Your task to perform on an android device: turn off picture-in-picture Image 0: 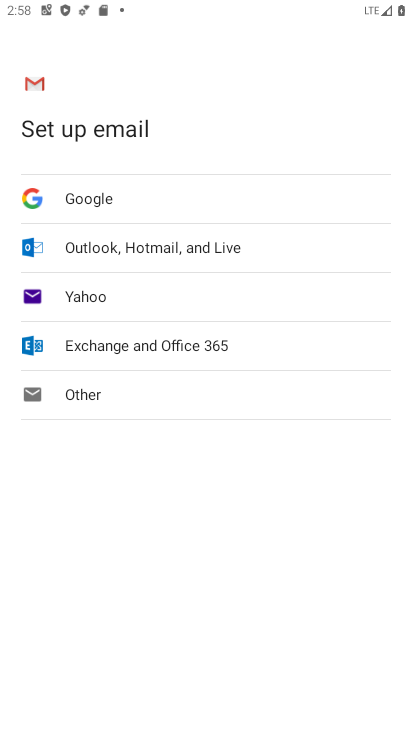
Step 0: press home button
Your task to perform on an android device: turn off picture-in-picture Image 1: 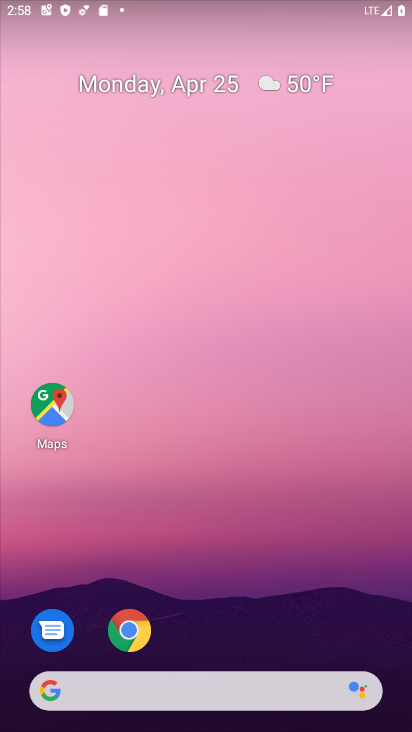
Step 1: drag from (144, 429) to (82, 90)
Your task to perform on an android device: turn off picture-in-picture Image 2: 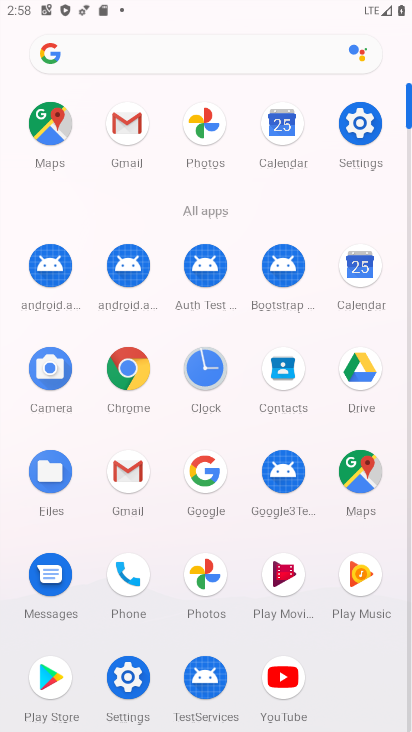
Step 2: click (363, 129)
Your task to perform on an android device: turn off picture-in-picture Image 3: 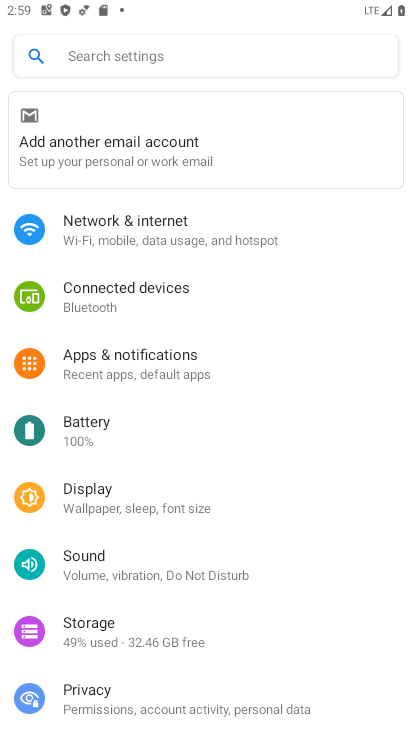
Step 3: click (184, 374)
Your task to perform on an android device: turn off picture-in-picture Image 4: 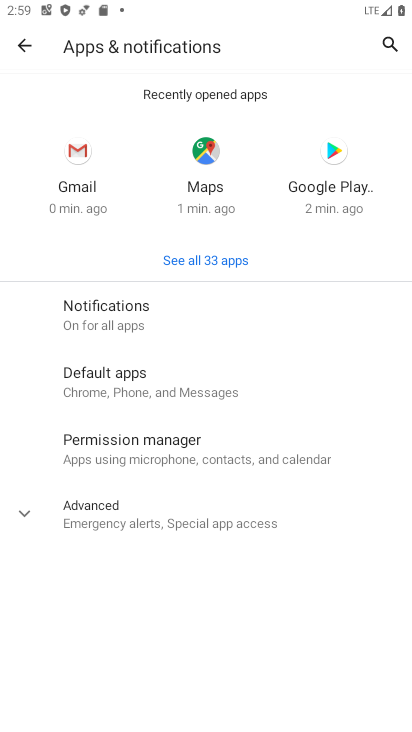
Step 4: click (101, 517)
Your task to perform on an android device: turn off picture-in-picture Image 5: 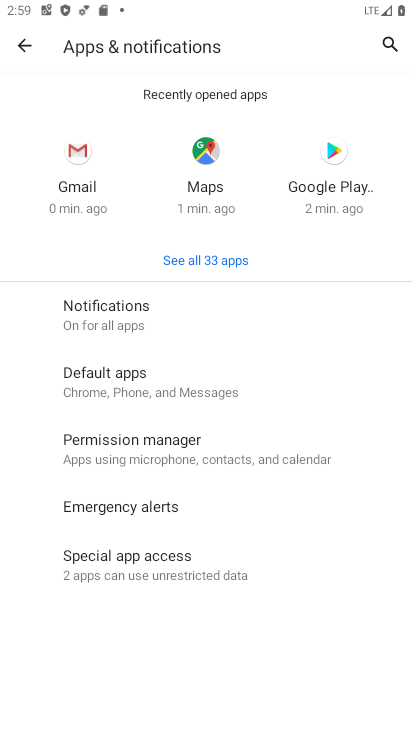
Step 5: click (110, 556)
Your task to perform on an android device: turn off picture-in-picture Image 6: 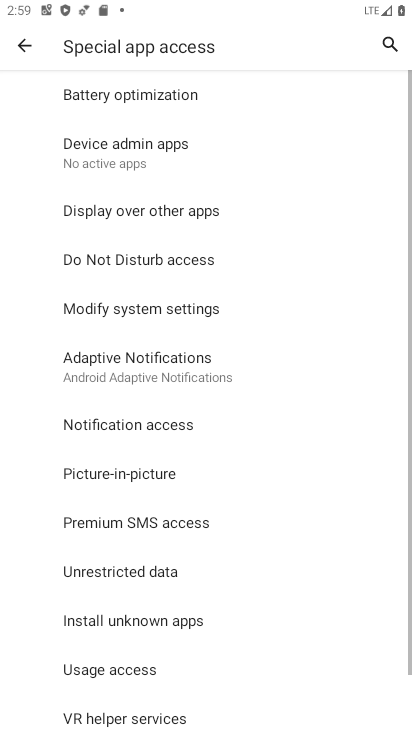
Step 6: click (144, 473)
Your task to perform on an android device: turn off picture-in-picture Image 7: 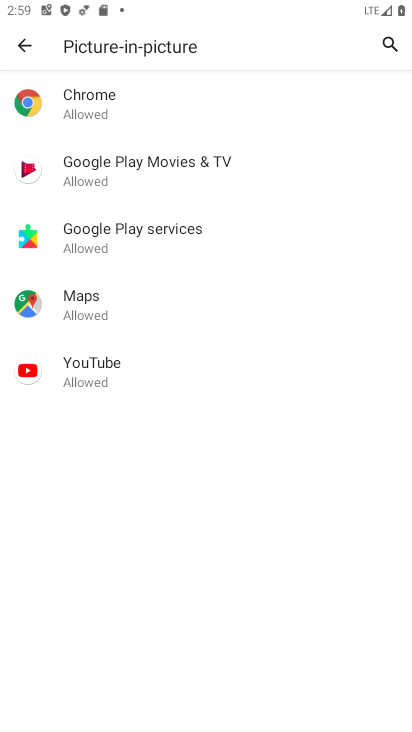
Step 7: click (92, 106)
Your task to perform on an android device: turn off picture-in-picture Image 8: 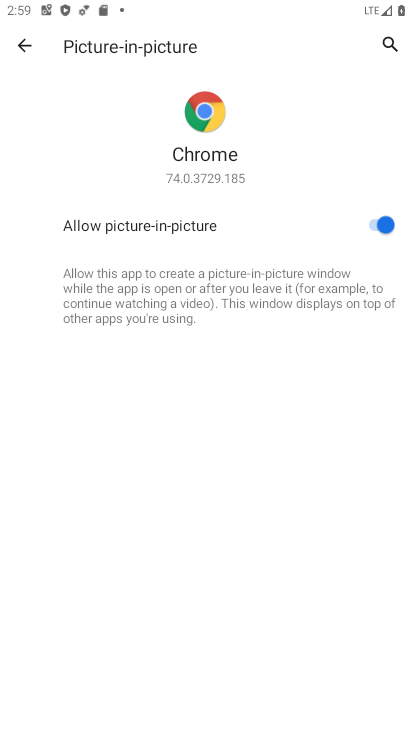
Step 8: click (380, 217)
Your task to perform on an android device: turn off picture-in-picture Image 9: 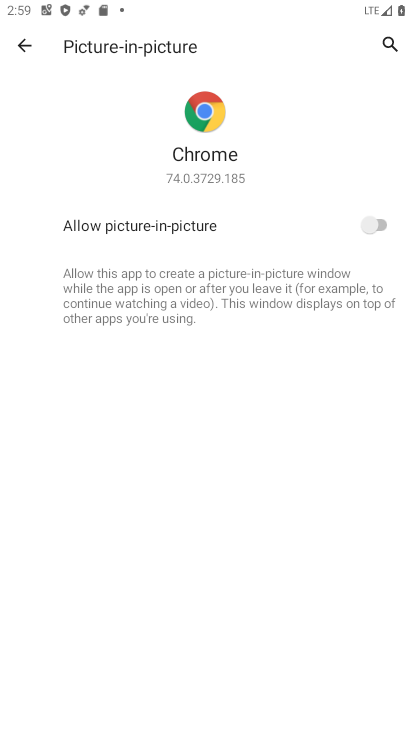
Step 9: task complete